Your task to perform on an android device: Open calendar and show me the first week of next month Image 0: 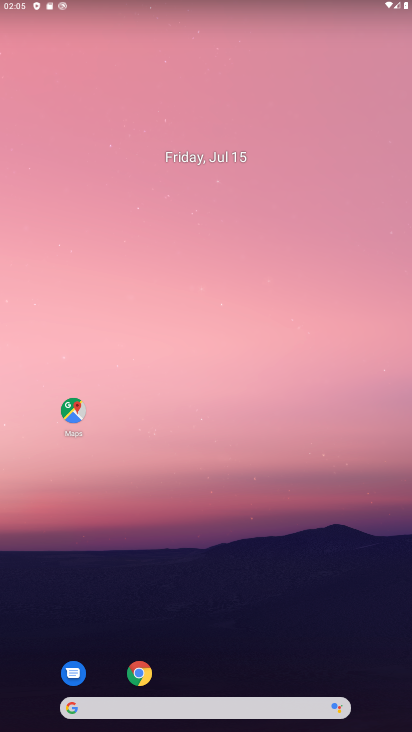
Step 0: drag from (186, 507) to (83, 53)
Your task to perform on an android device: Open calendar and show me the first week of next month Image 1: 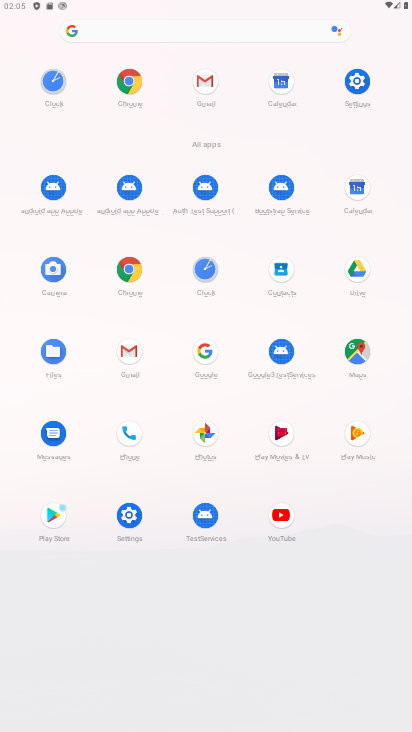
Step 1: click (357, 186)
Your task to perform on an android device: Open calendar and show me the first week of next month Image 2: 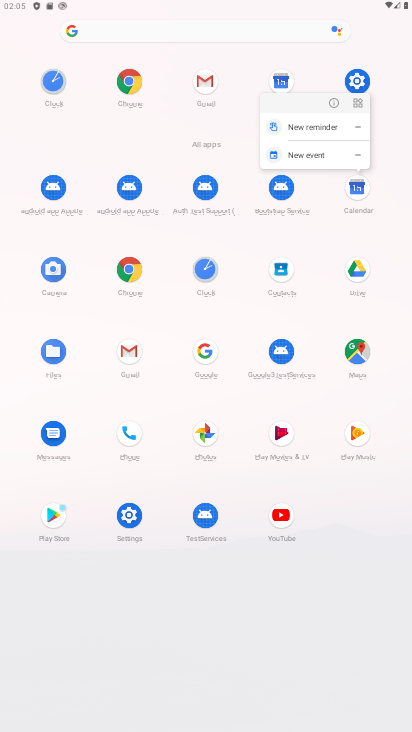
Step 2: click (355, 187)
Your task to perform on an android device: Open calendar and show me the first week of next month Image 3: 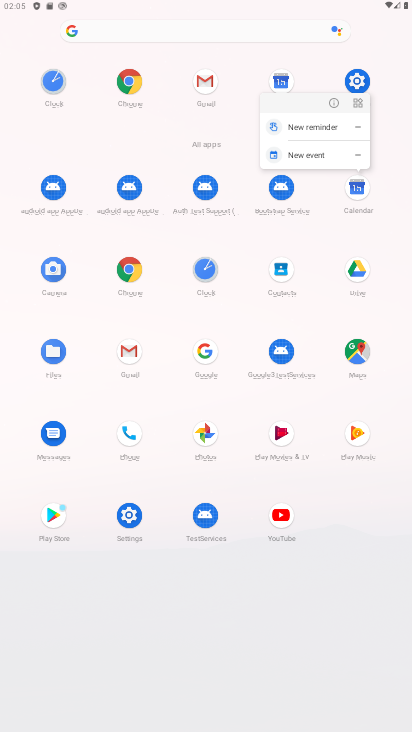
Step 3: click (350, 194)
Your task to perform on an android device: Open calendar and show me the first week of next month Image 4: 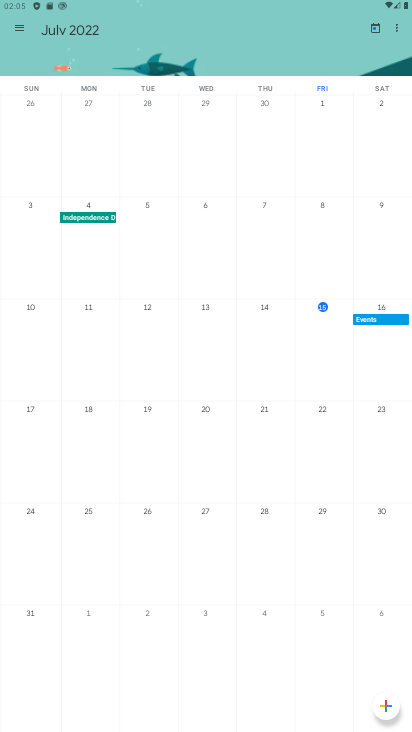
Step 4: drag from (350, 193) to (4, 129)
Your task to perform on an android device: Open calendar and show me the first week of next month Image 5: 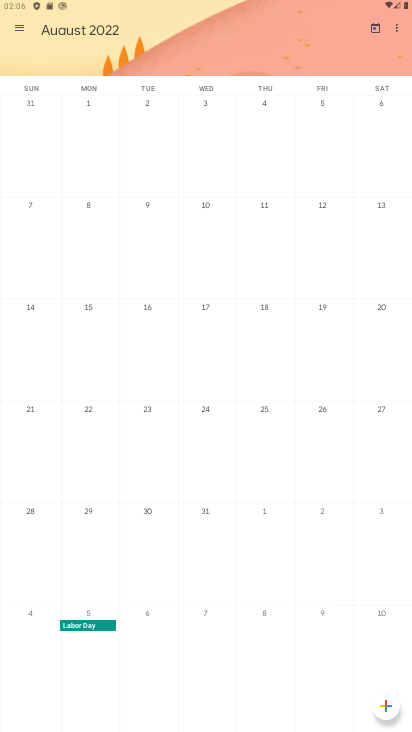
Step 5: click (33, 209)
Your task to perform on an android device: Open calendar and show me the first week of next month Image 6: 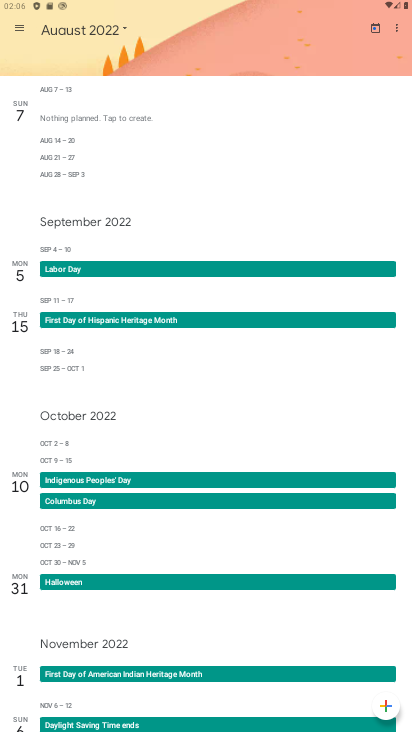
Step 6: task complete